Your task to perform on an android device: check google app version Image 0: 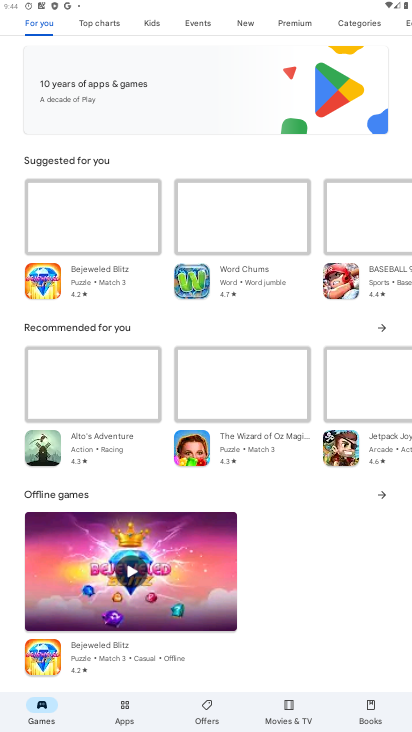
Step 0: drag from (197, 610) to (193, 124)
Your task to perform on an android device: check google app version Image 1: 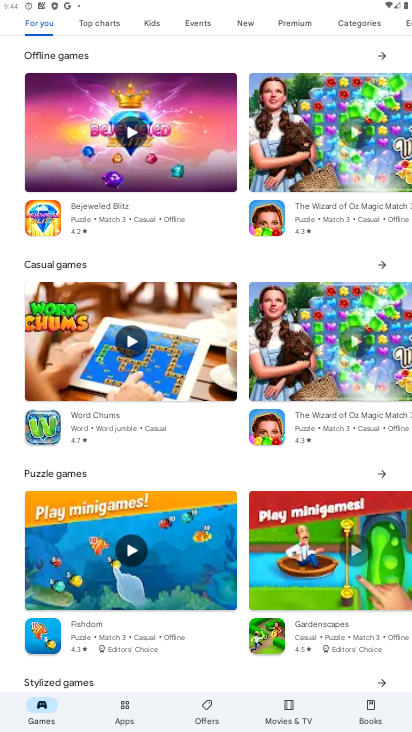
Step 1: press home button
Your task to perform on an android device: check google app version Image 2: 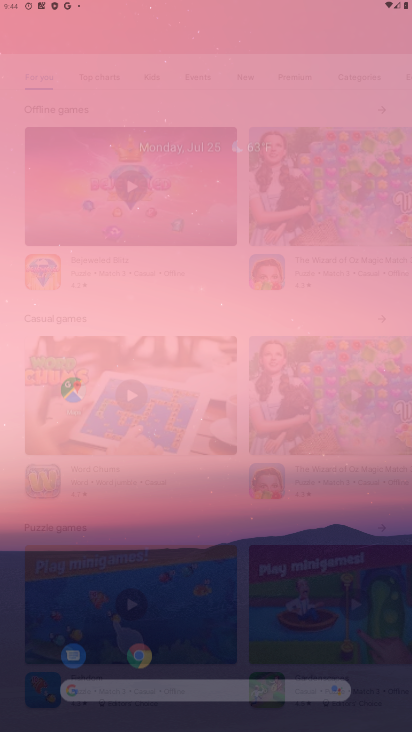
Step 2: drag from (184, 579) to (300, 79)
Your task to perform on an android device: check google app version Image 3: 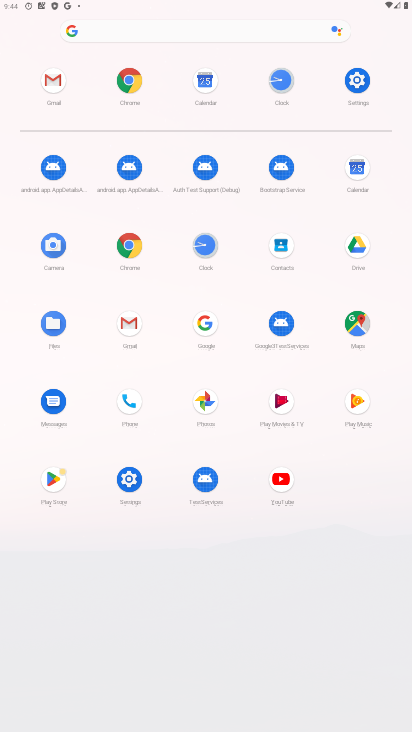
Step 3: click (198, 322)
Your task to perform on an android device: check google app version Image 4: 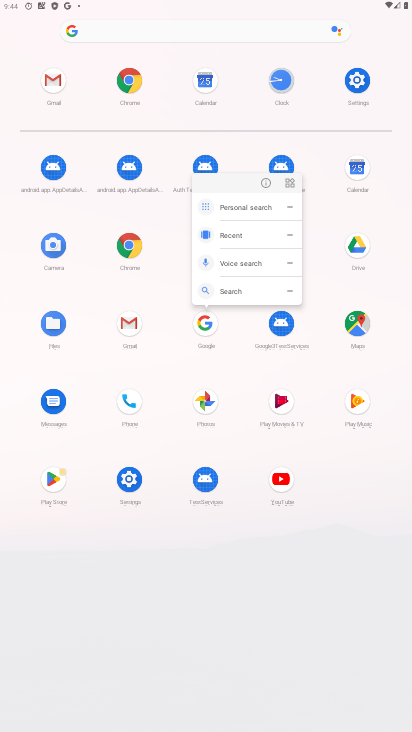
Step 4: click (263, 180)
Your task to perform on an android device: check google app version Image 5: 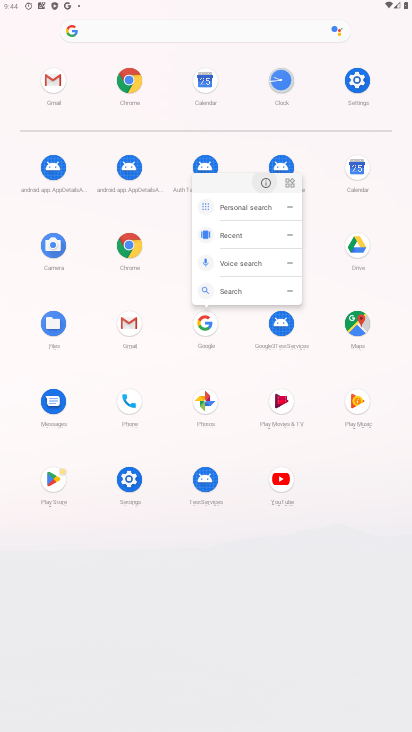
Step 5: click (263, 180)
Your task to perform on an android device: check google app version Image 6: 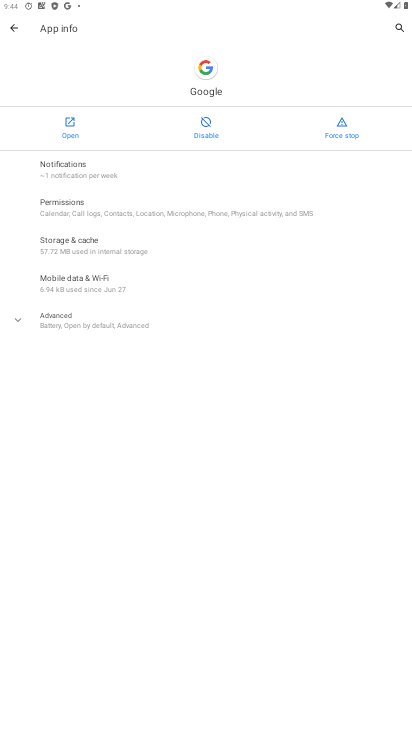
Step 6: click (69, 122)
Your task to perform on an android device: check google app version Image 7: 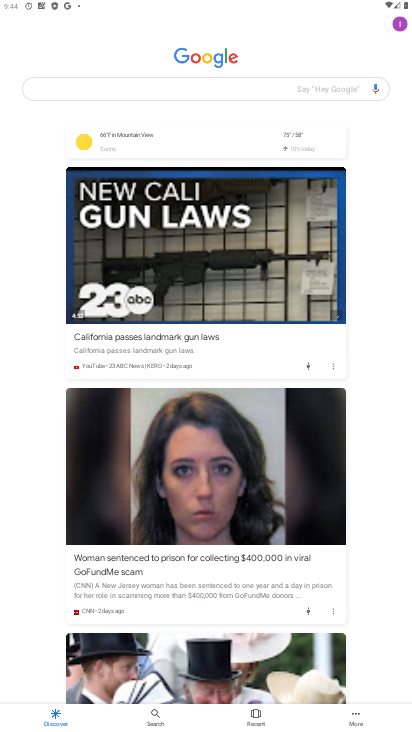
Step 7: drag from (205, 594) to (233, 196)
Your task to perform on an android device: check google app version Image 8: 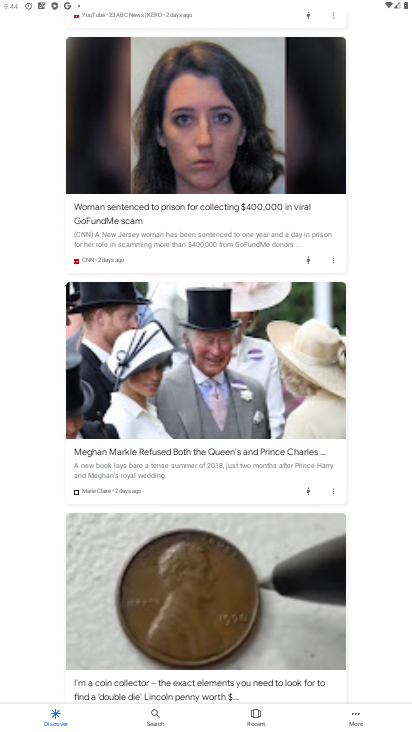
Step 8: drag from (219, 260) to (286, 725)
Your task to perform on an android device: check google app version Image 9: 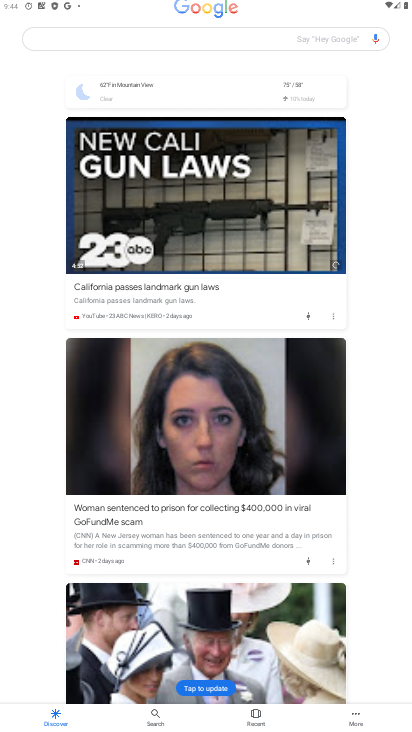
Step 9: drag from (266, 111) to (257, 668)
Your task to perform on an android device: check google app version Image 10: 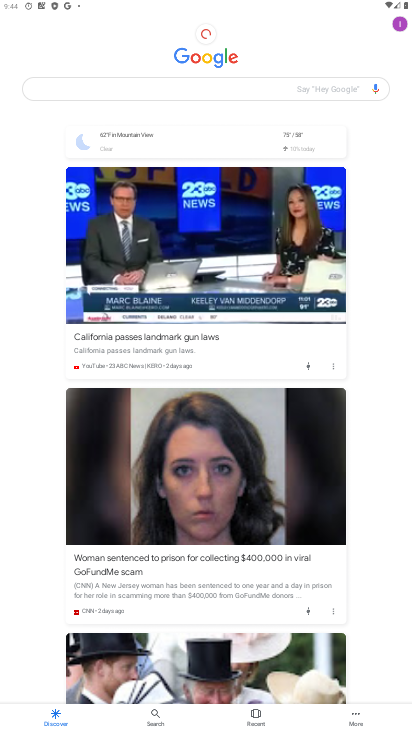
Step 10: drag from (335, 139) to (320, 361)
Your task to perform on an android device: check google app version Image 11: 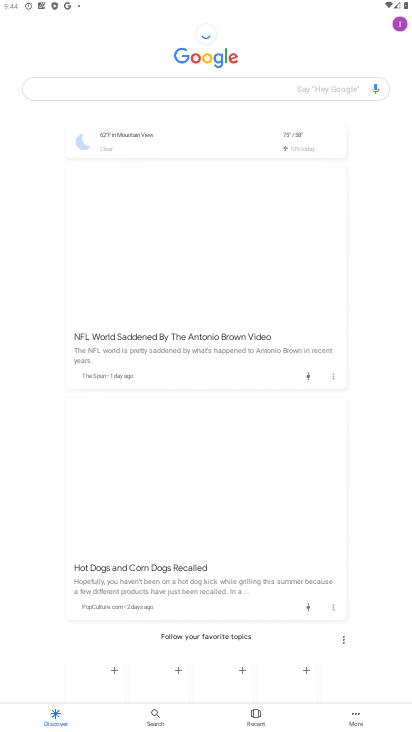
Step 11: click (400, 23)
Your task to perform on an android device: check google app version Image 12: 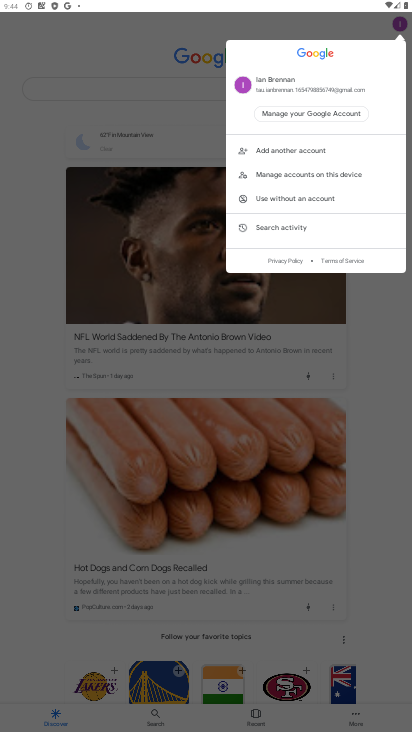
Step 12: drag from (290, 174) to (335, 32)
Your task to perform on an android device: check google app version Image 13: 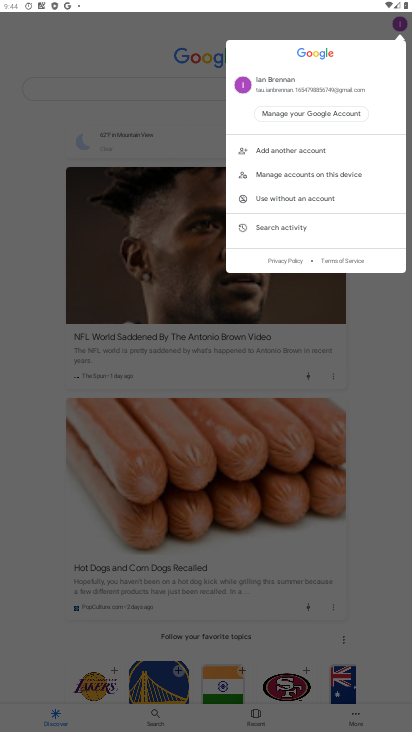
Step 13: click (361, 425)
Your task to perform on an android device: check google app version Image 14: 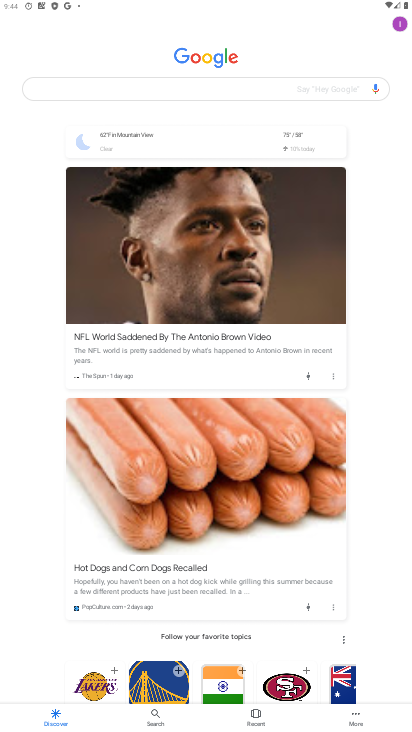
Step 14: click (351, 727)
Your task to perform on an android device: check google app version Image 15: 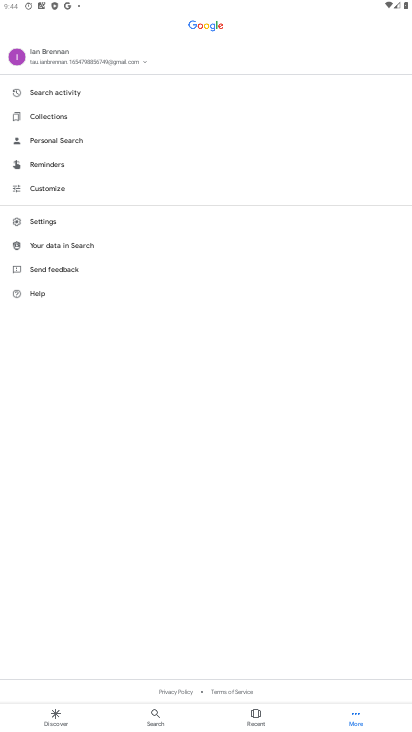
Step 15: click (54, 215)
Your task to perform on an android device: check google app version Image 16: 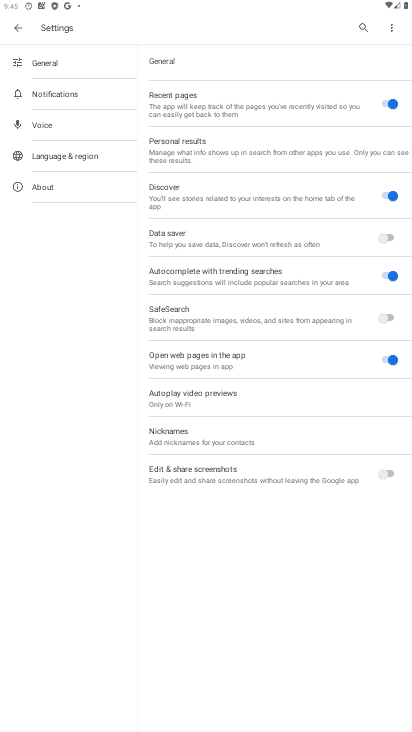
Step 16: click (41, 191)
Your task to perform on an android device: check google app version Image 17: 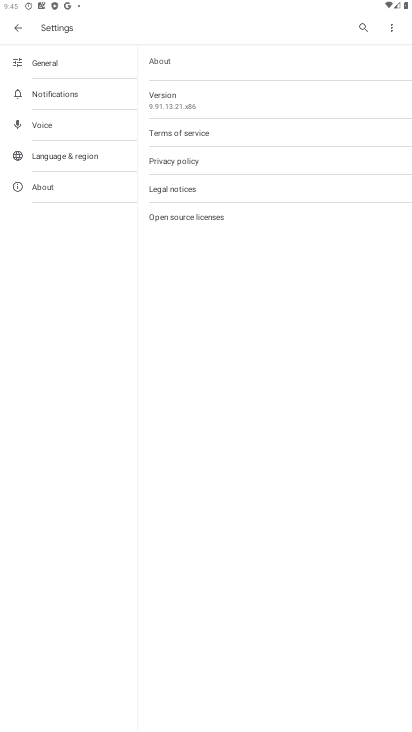
Step 17: click (200, 53)
Your task to perform on an android device: check google app version Image 18: 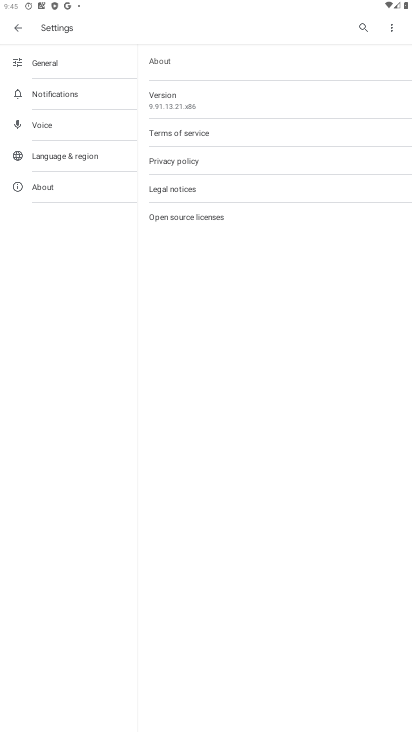
Step 18: click (212, 91)
Your task to perform on an android device: check google app version Image 19: 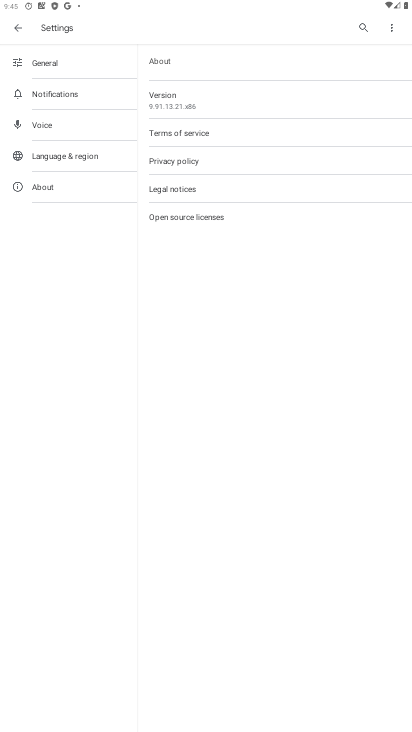
Step 19: task complete